Your task to perform on an android device: find snoozed emails in the gmail app Image 0: 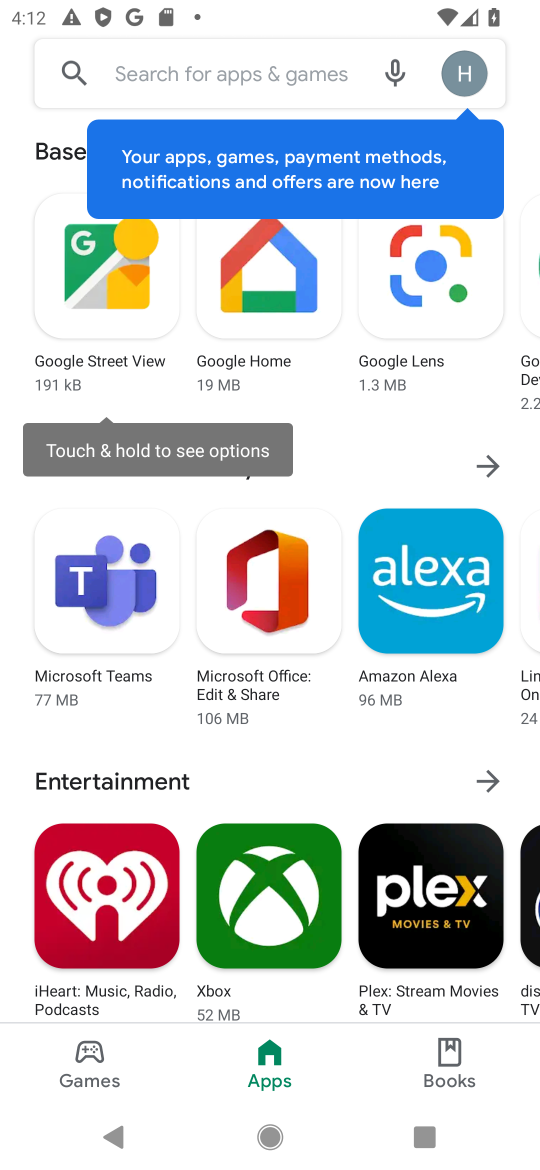
Step 0: press home button
Your task to perform on an android device: find snoozed emails in the gmail app Image 1: 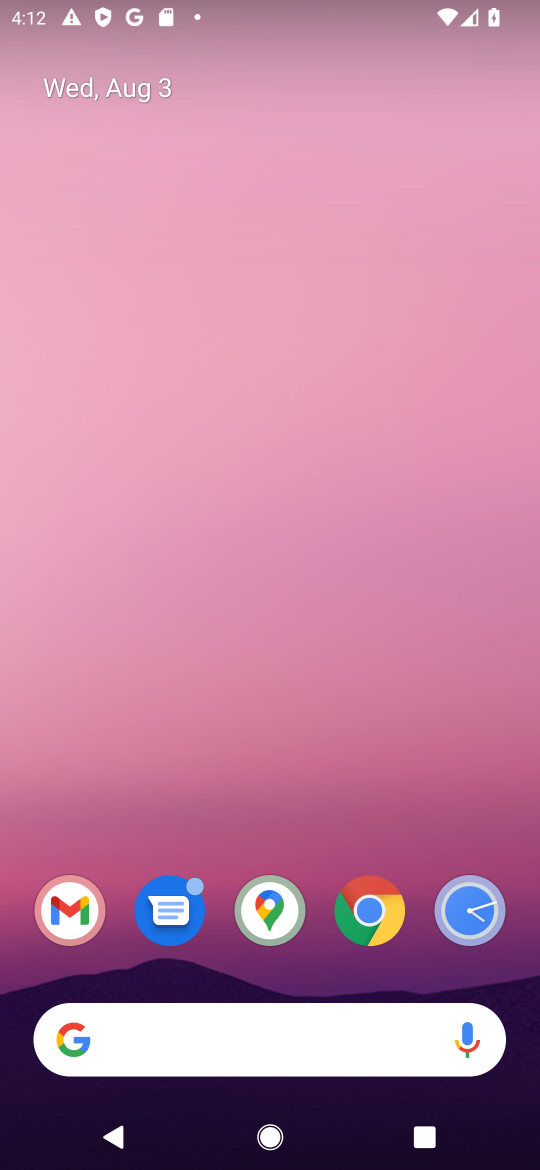
Step 1: press home button
Your task to perform on an android device: find snoozed emails in the gmail app Image 2: 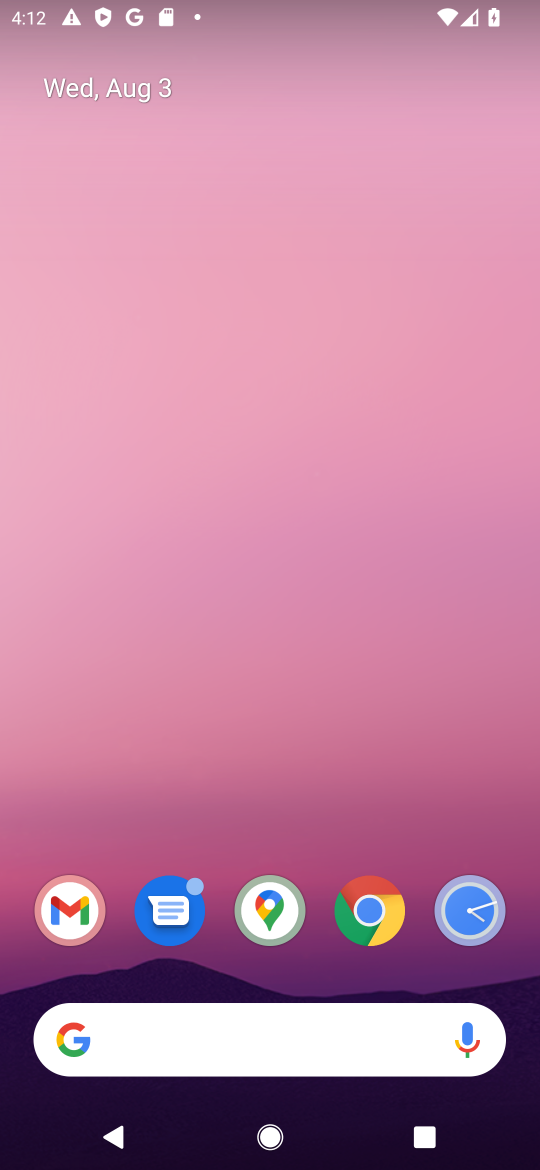
Step 2: drag from (117, 965) to (269, 182)
Your task to perform on an android device: find snoozed emails in the gmail app Image 3: 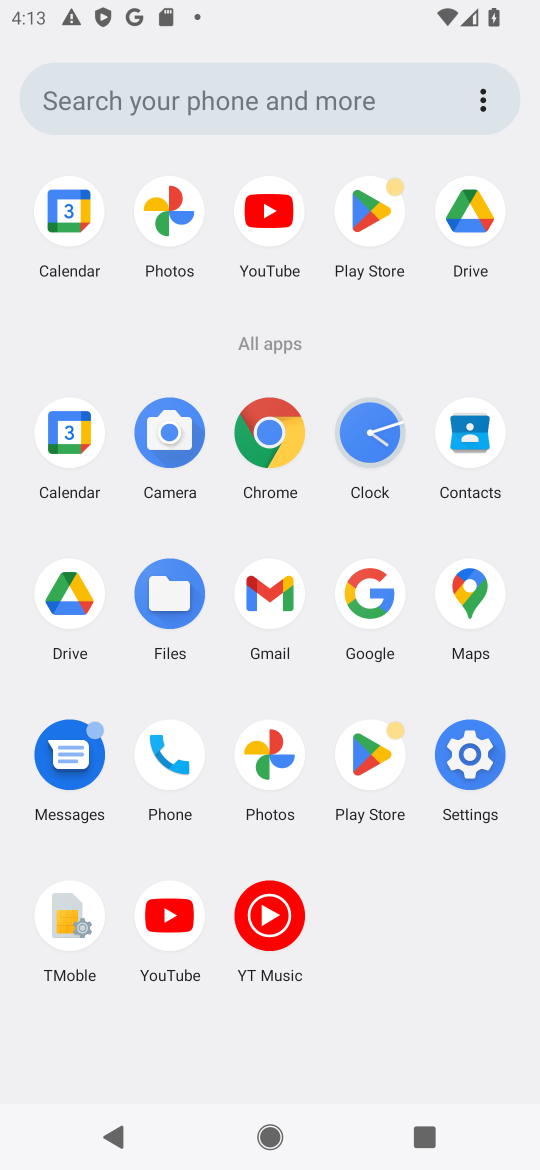
Step 3: click (282, 607)
Your task to perform on an android device: find snoozed emails in the gmail app Image 4: 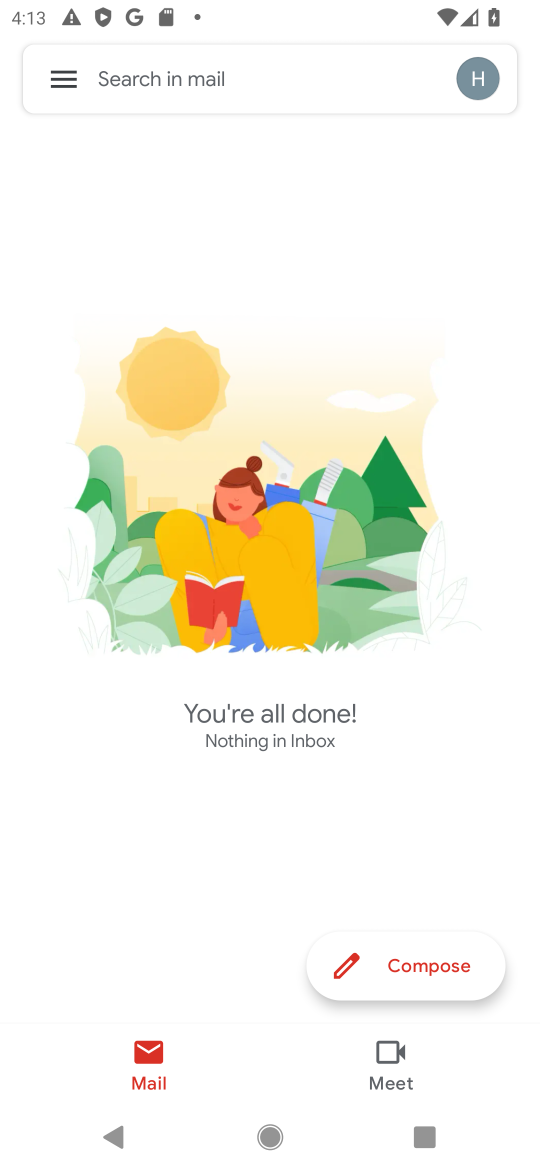
Step 4: click (56, 79)
Your task to perform on an android device: find snoozed emails in the gmail app Image 5: 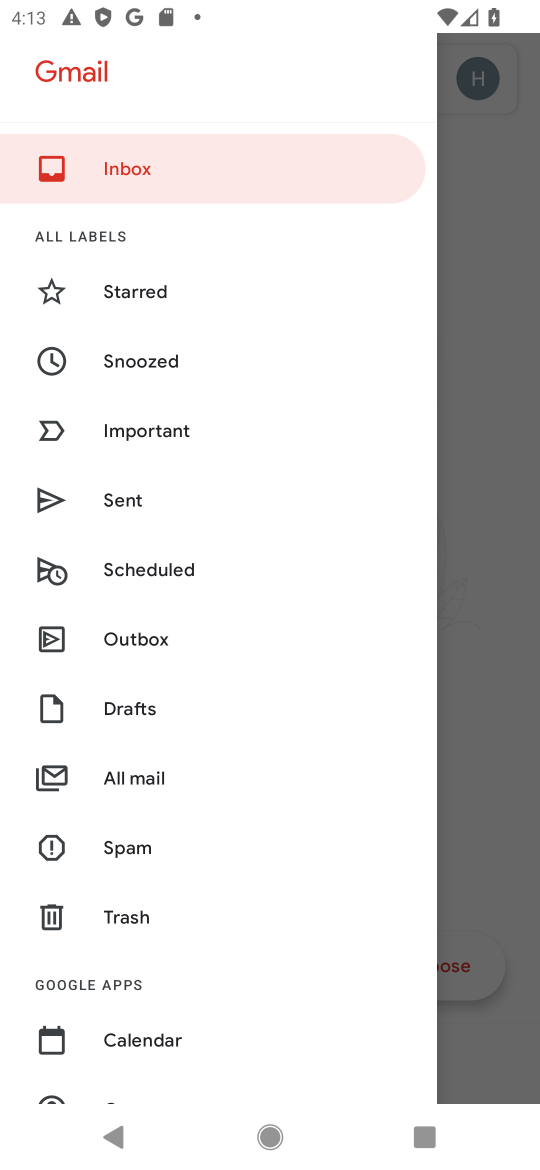
Step 5: click (144, 356)
Your task to perform on an android device: find snoozed emails in the gmail app Image 6: 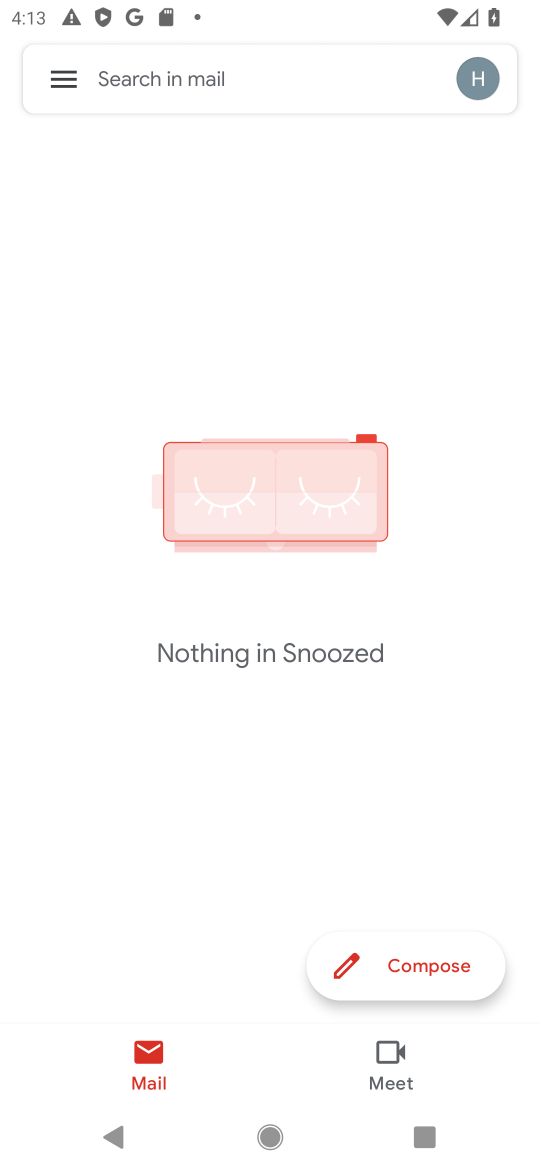
Step 6: task complete